Your task to perform on an android device: Go to Maps Image 0: 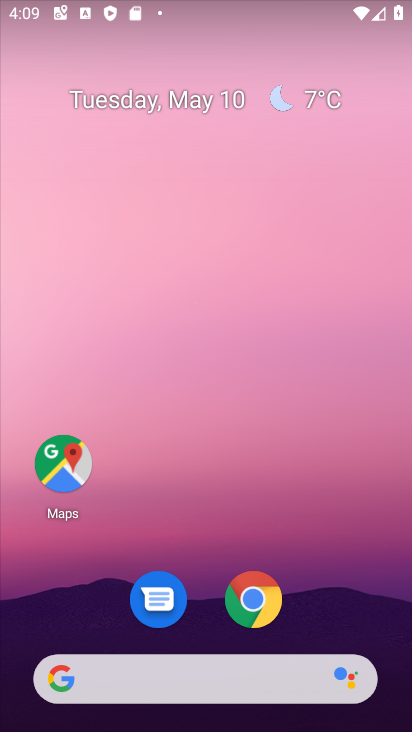
Step 0: drag from (262, 643) to (307, 69)
Your task to perform on an android device: Go to Maps Image 1: 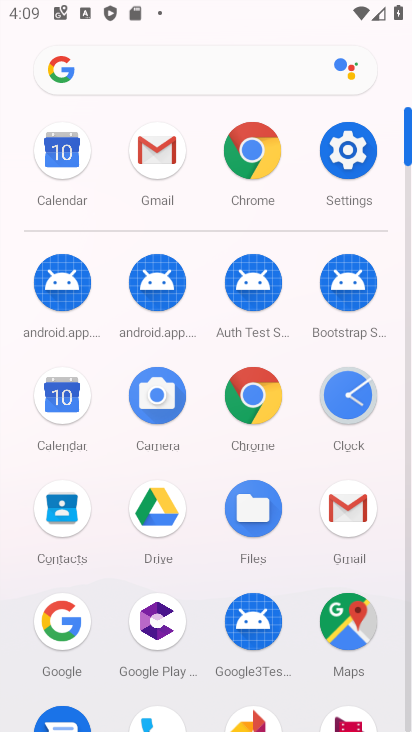
Step 1: click (362, 628)
Your task to perform on an android device: Go to Maps Image 2: 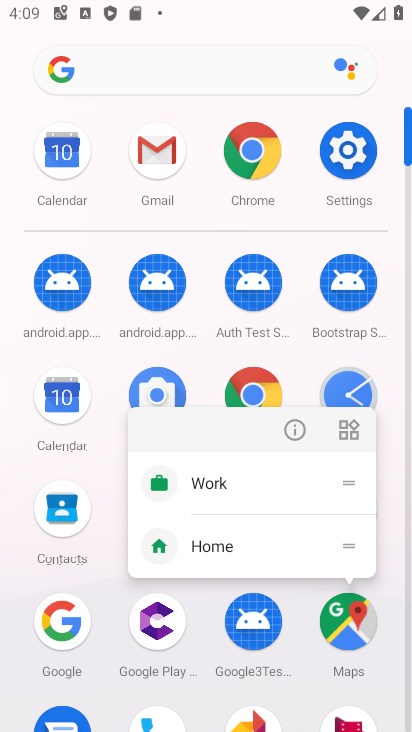
Step 2: click (344, 608)
Your task to perform on an android device: Go to Maps Image 3: 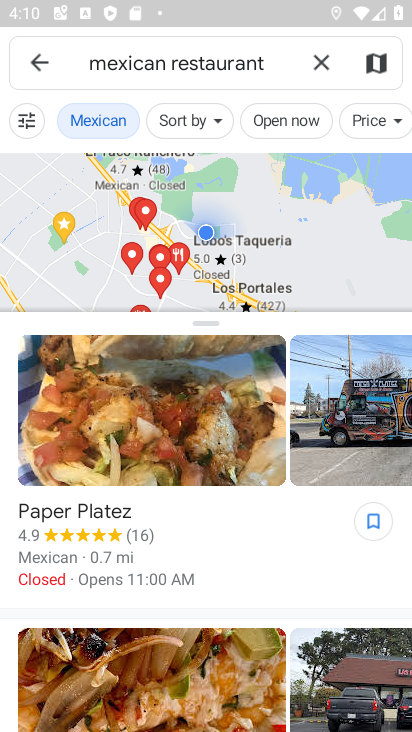
Step 3: task complete